Your task to perform on an android device: turn off airplane mode Image 0: 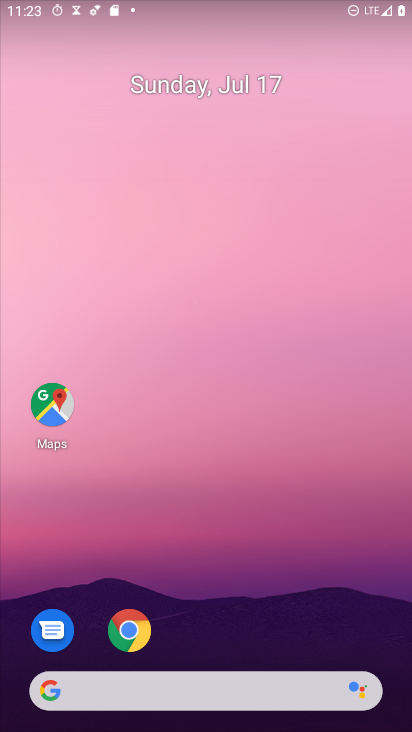
Step 0: drag from (164, 697) to (163, 1)
Your task to perform on an android device: turn off airplane mode Image 1: 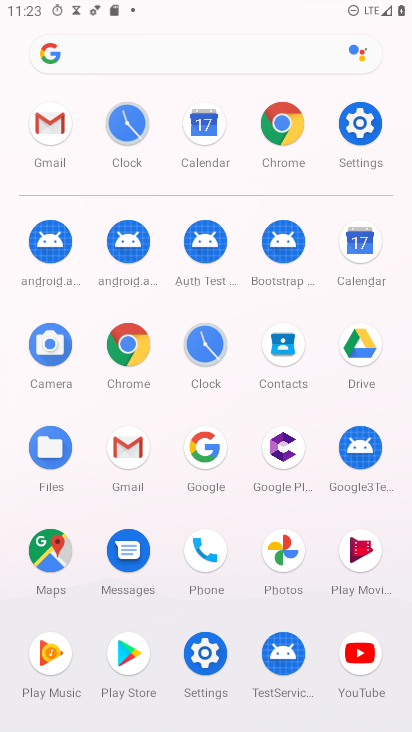
Step 1: click (365, 117)
Your task to perform on an android device: turn off airplane mode Image 2: 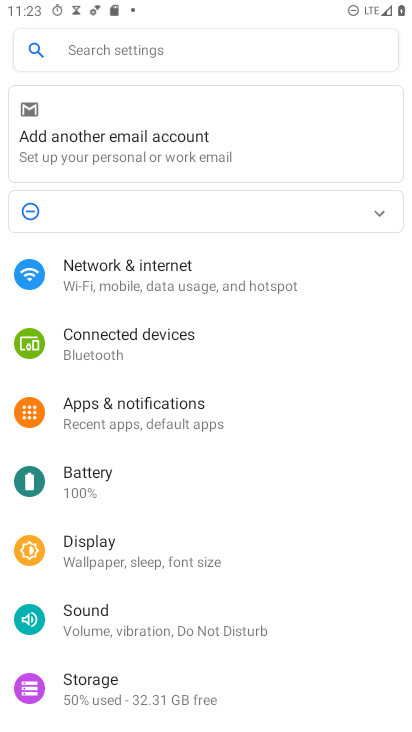
Step 2: drag from (165, 288) to (130, 279)
Your task to perform on an android device: turn off airplane mode Image 3: 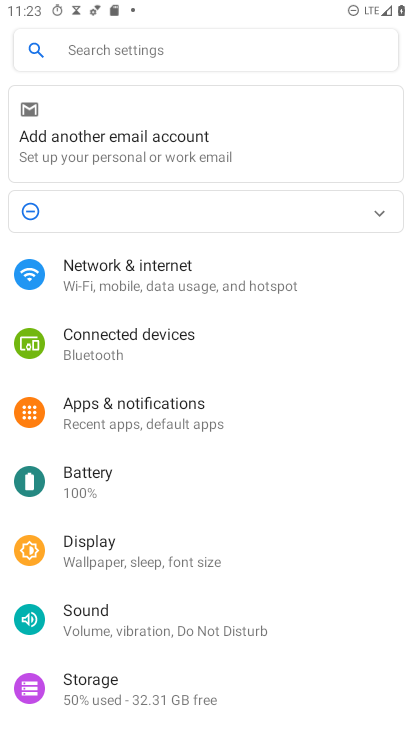
Step 3: click (249, 282)
Your task to perform on an android device: turn off airplane mode Image 4: 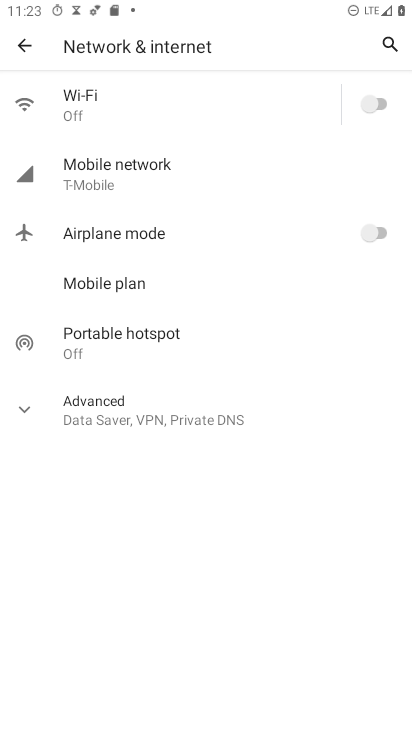
Step 4: task complete